Your task to perform on an android device: Go to Android settings Image 0: 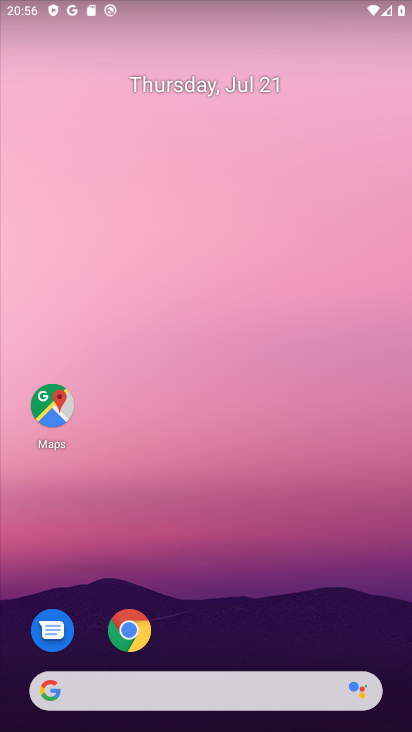
Step 0: drag from (281, 626) to (245, 83)
Your task to perform on an android device: Go to Android settings Image 1: 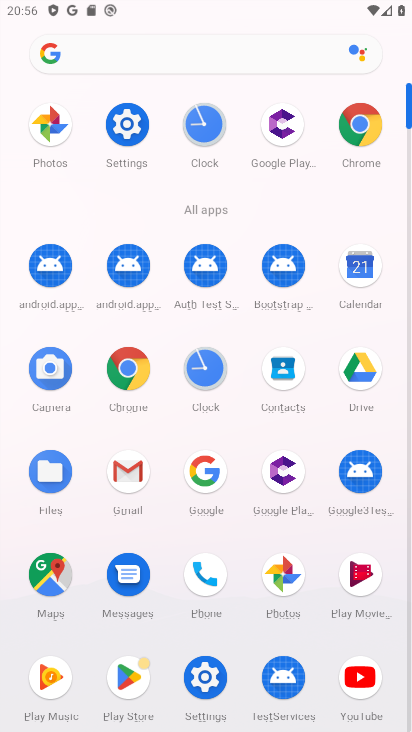
Step 1: click (121, 125)
Your task to perform on an android device: Go to Android settings Image 2: 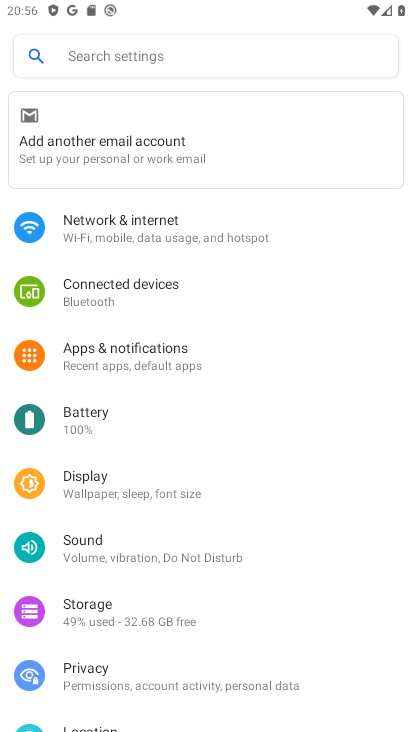
Step 2: task complete